Your task to perform on an android device: Toggle the flashlight Image 0: 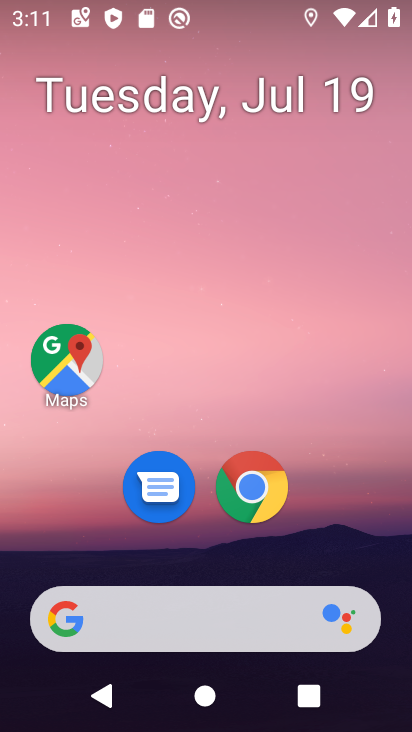
Step 0: drag from (208, 530) to (277, 9)
Your task to perform on an android device: Toggle the flashlight Image 1: 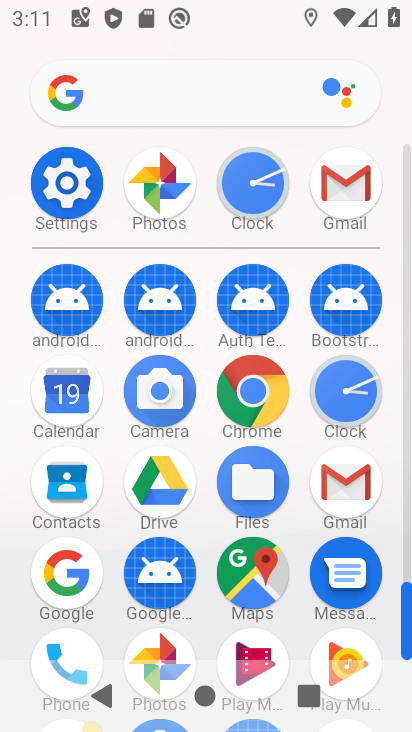
Step 1: click (69, 200)
Your task to perform on an android device: Toggle the flashlight Image 2: 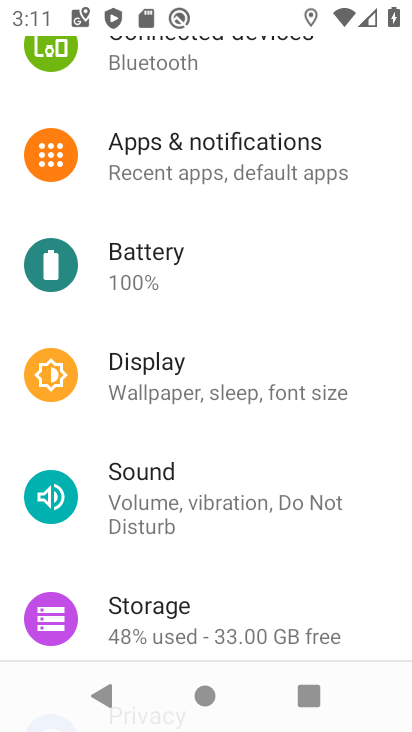
Step 2: drag from (222, 165) to (220, 719)
Your task to perform on an android device: Toggle the flashlight Image 3: 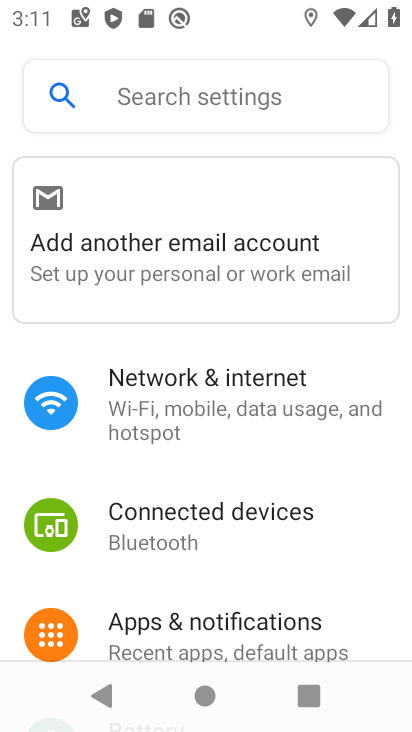
Step 3: click (193, 96)
Your task to perform on an android device: Toggle the flashlight Image 4: 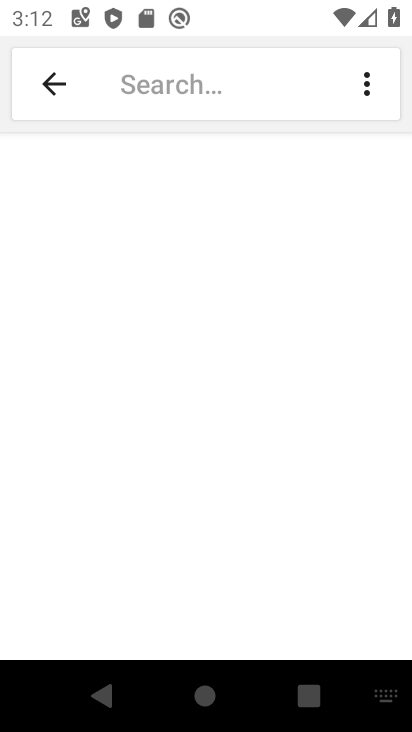
Step 4: type "flashlight"
Your task to perform on an android device: Toggle the flashlight Image 5: 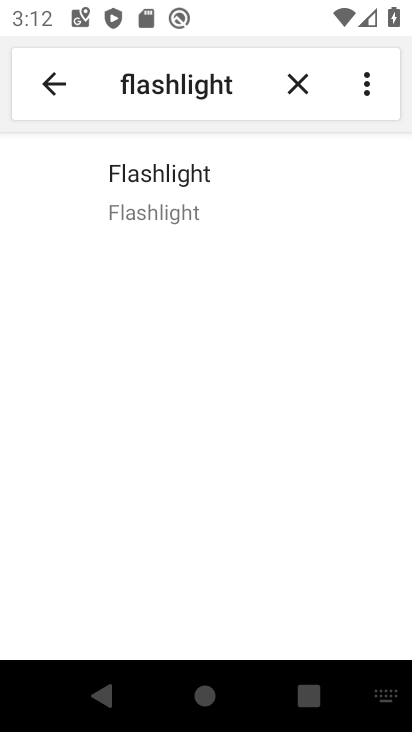
Step 5: click (90, 189)
Your task to perform on an android device: Toggle the flashlight Image 6: 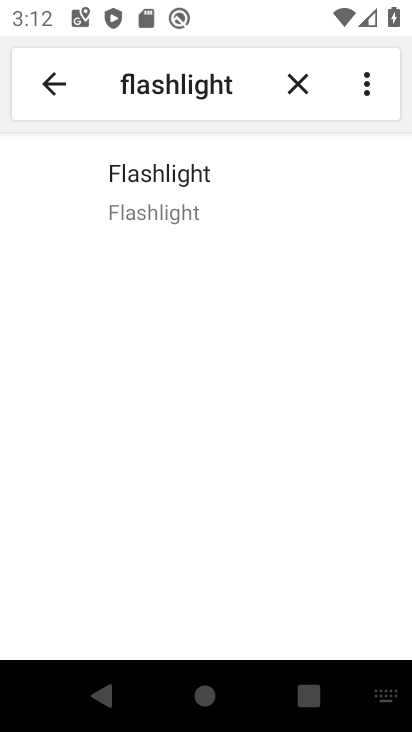
Step 6: task complete